Your task to perform on an android device: Go to Google Image 0: 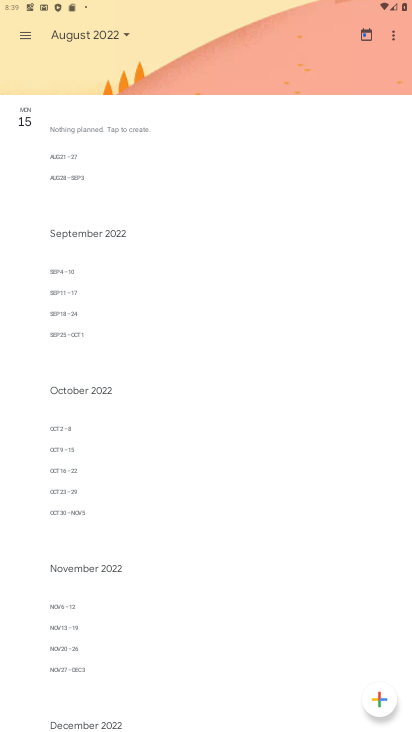
Step 0: press home button
Your task to perform on an android device: Go to Google Image 1: 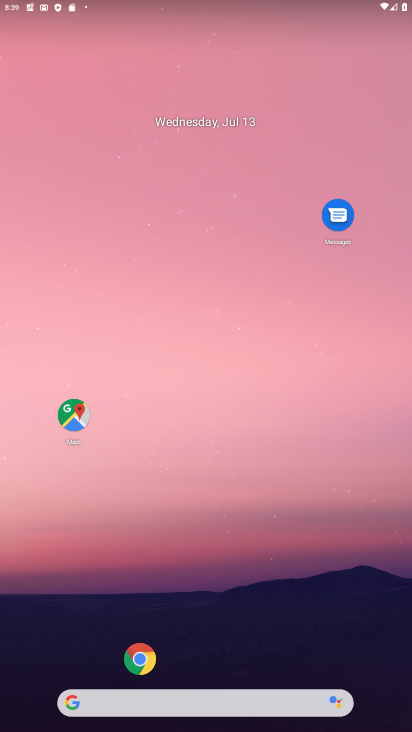
Step 1: click (103, 700)
Your task to perform on an android device: Go to Google Image 2: 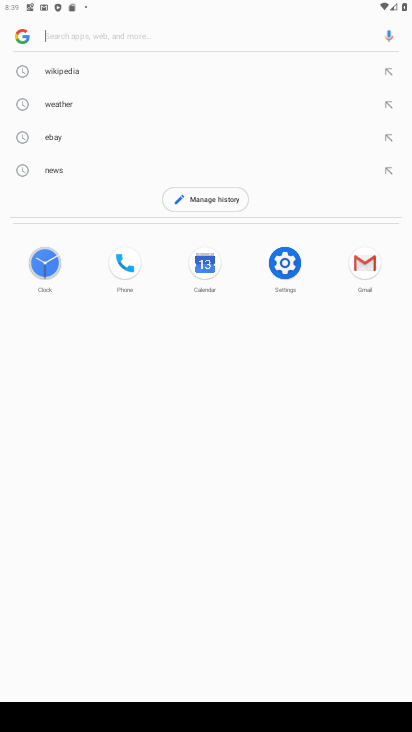
Step 2: task complete